Your task to perform on an android device: Open Youtube and go to "Your channel" Image 0: 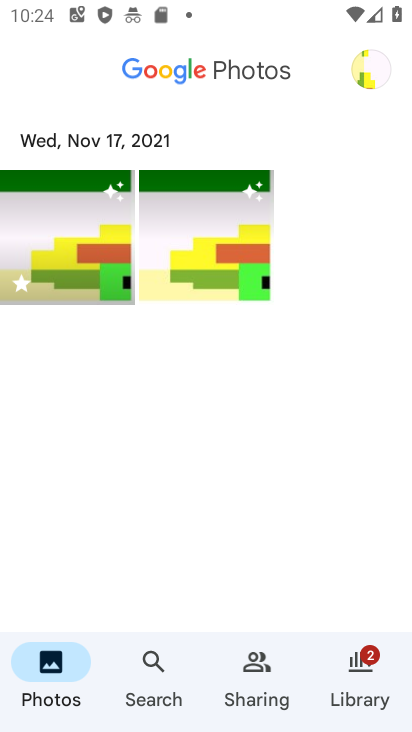
Step 0: press home button
Your task to perform on an android device: Open Youtube and go to "Your channel" Image 1: 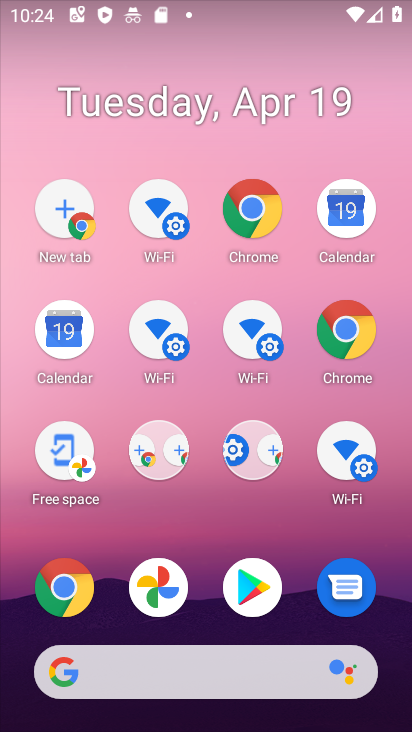
Step 1: drag from (299, 506) to (197, 179)
Your task to perform on an android device: Open Youtube and go to "Your channel" Image 2: 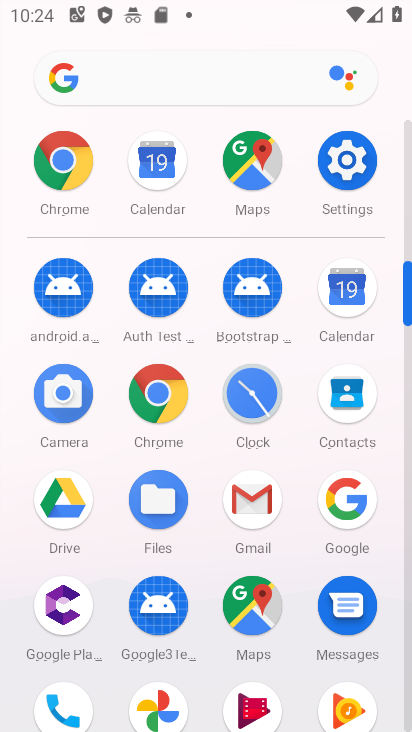
Step 2: drag from (237, 659) to (140, 112)
Your task to perform on an android device: Open Youtube and go to "Your channel" Image 3: 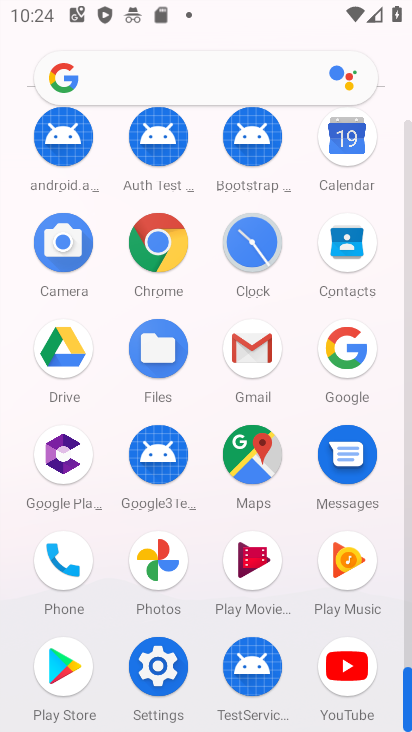
Step 3: click (342, 648)
Your task to perform on an android device: Open Youtube and go to "Your channel" Image 4: 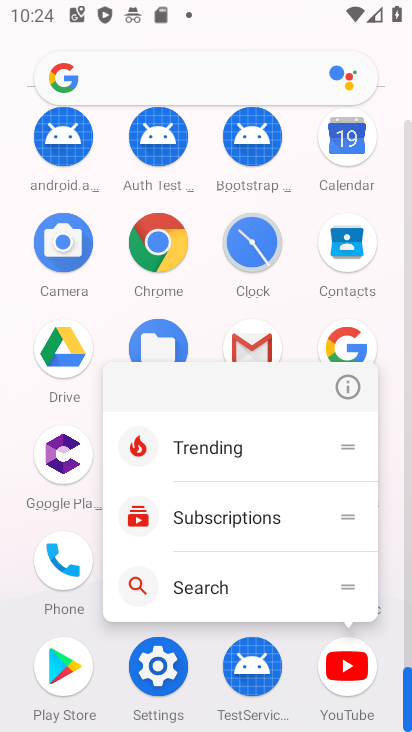
Step 4: click (338, 670)
Your task to perform on an android device: Open Youtube and go to "Your channel" Image 5: 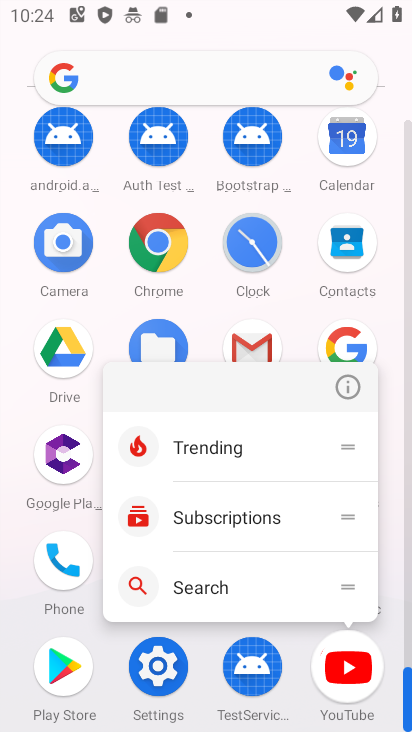
Step 5: click (345, 667)
Your task to perform on an android device: Open Youtube and go to "Your channel" Image 6: 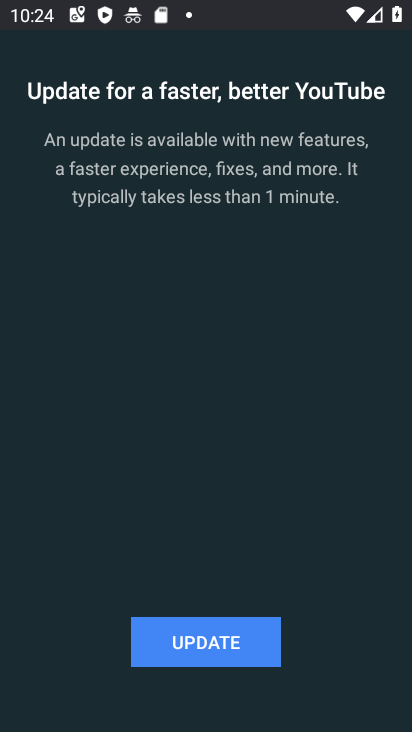
Step 6: click (179, 654)
Your task to perform on an android device: Open Youtube and go to "Your channel" Image 7: 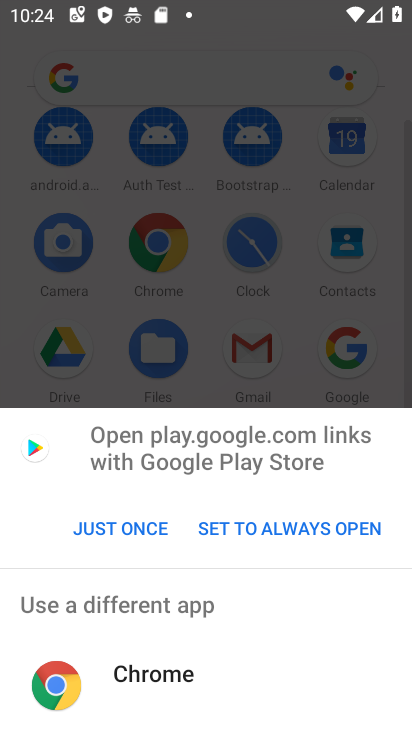
Step 7: click (264, 524)
Your task to perform on an android device: Open Youtube and go to "Your channel" Image 8: 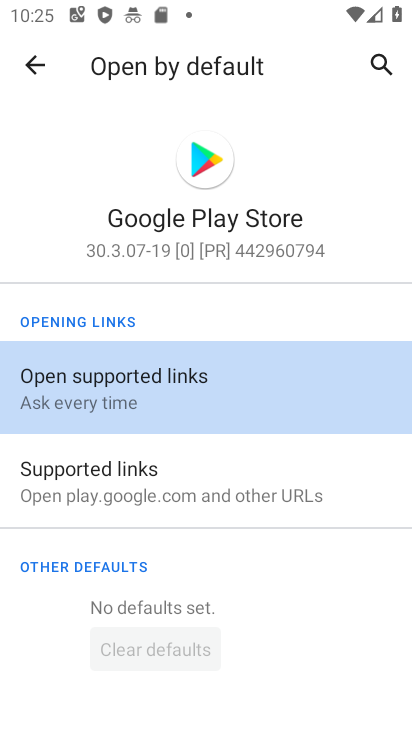
Step 8: click (42, 67)
Your task to perform on an android device: Open Youtube and go to "Your channel" Image 9: 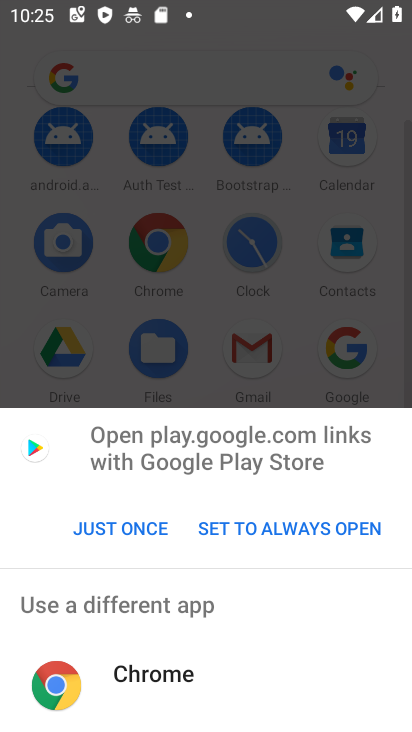
Step 9: click (125, 523)
Your task to perform on an android device: Open Youtube and go to "Your channel" Image 10: 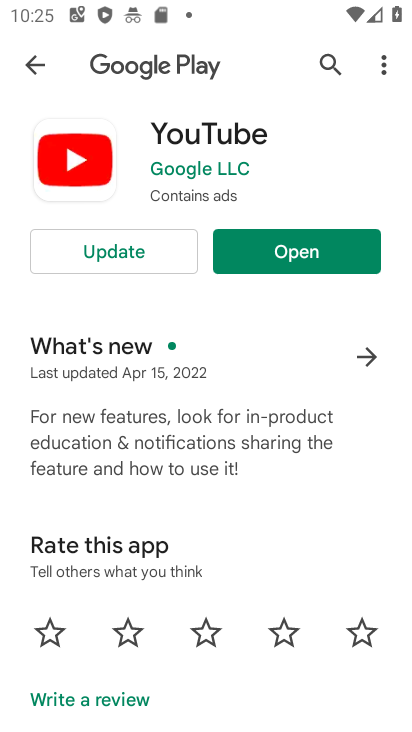
Step 10: click (131, 251)
Your task to perform on an android device: Open Youtube and go to "Your channel" Image 11: 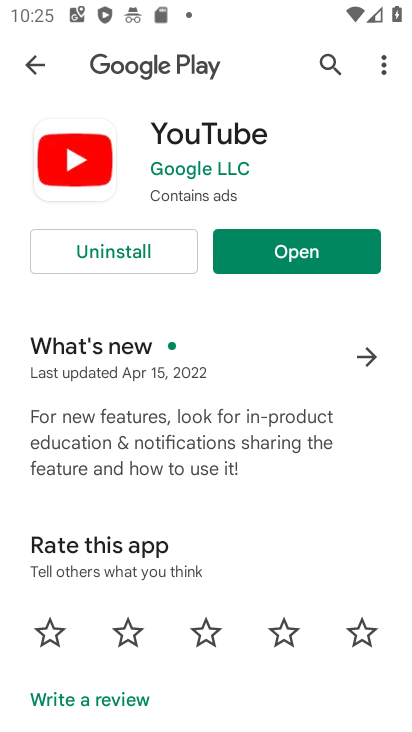
Step 11: click (269, 243)
Your task to perform on an android device: Open Youtube and go to "Your channel" Image 12: 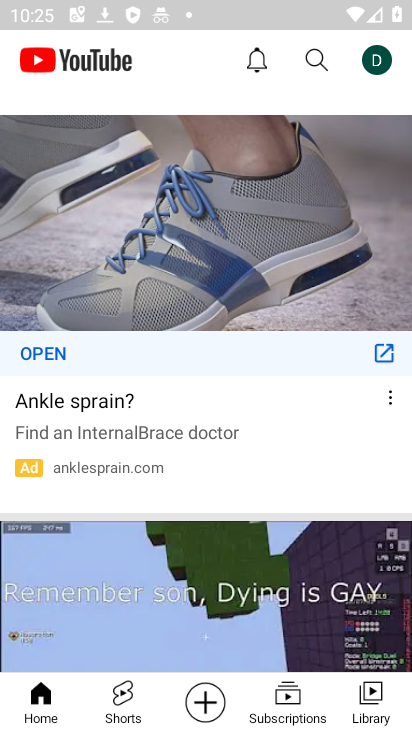
Step 12: drag from (181, 616) to (76, 237)
Your task to perform on an android device: Open Youtube and go to "Your channel" Image 13: 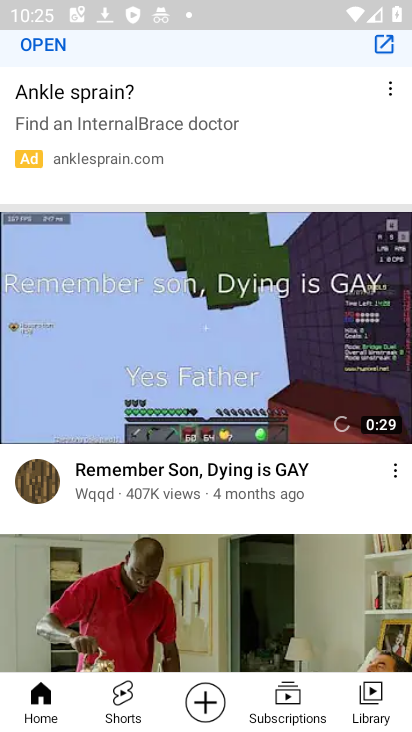
Step 13: drag from (200, 548) to (279, 206)
Your task to perform on an android device: Open Youtube and go to "Your channel" Image 14: 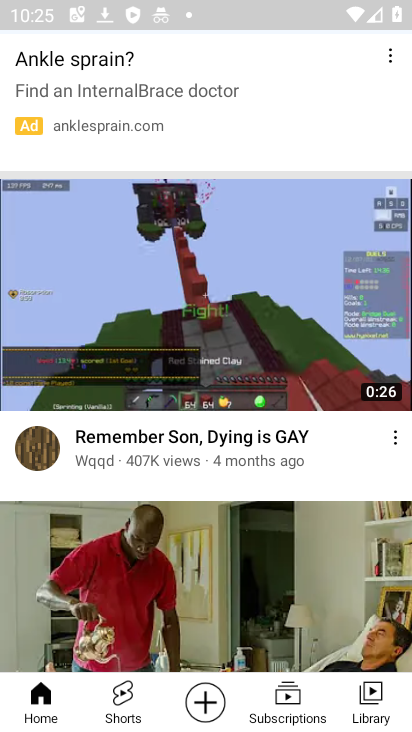
Step 14: drag from (306, 453) to (264, 272)
Your task to perform on an android device: Open Youtube and go to "Your channel" Image 15: 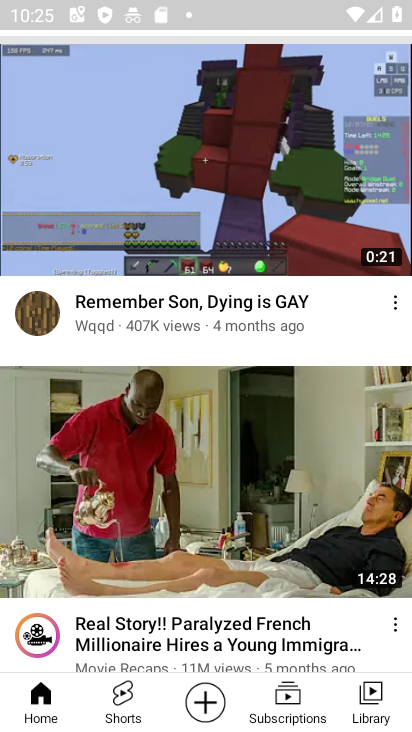
Step 15: click (240, 498)
Your task to perform on an android device: Open Youtube and go to "Your channel" Image 16: 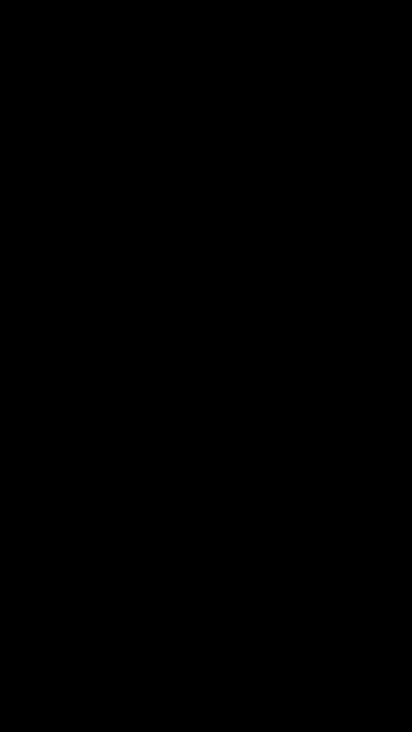
Step 16: task complete